Your task to perform on an android device: empty trash in google photos Image 0: 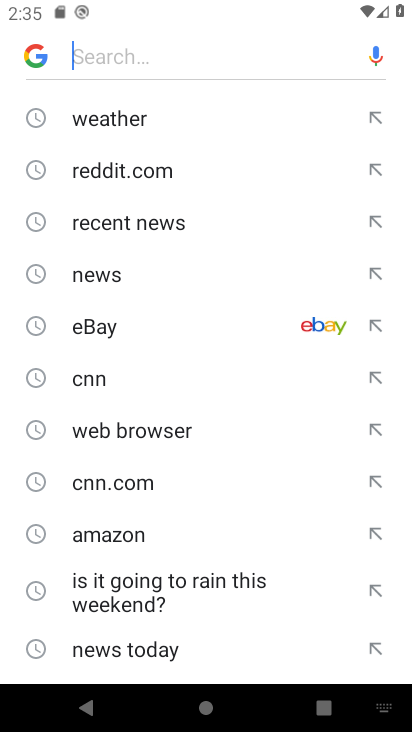
Step 0: press back button
Your task to perform on an android device: empty trash in google photos Image 1: 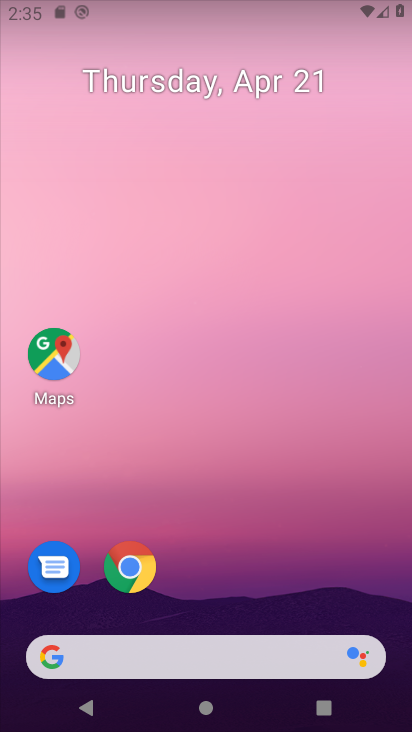
Step 1: drag from (283, 571) to (178, 3)
Your task to perform on an android device: empty trash in google photos Image 2: 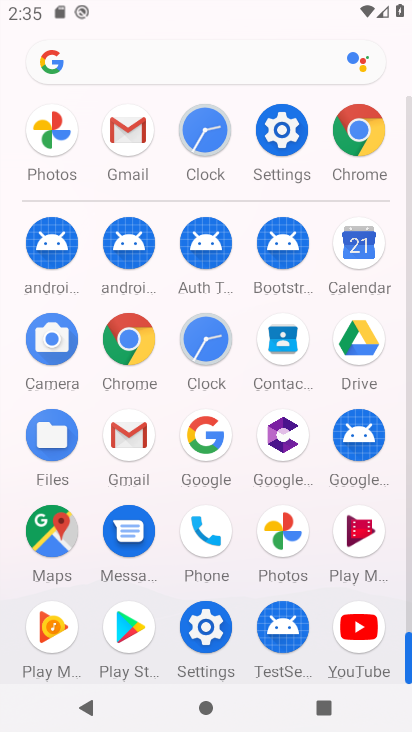
Step 2: drag from (15, 567) to (20, 259)
Your task to perform on an android device: empty trash in google photos Image 3: 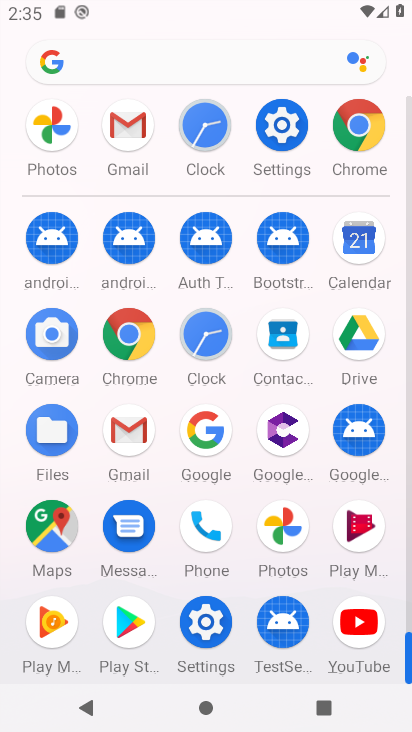
Step 3: drag from (7, 548) to (12, 284)
Your task to perform on an android device: empty trash in google photos Image 4: 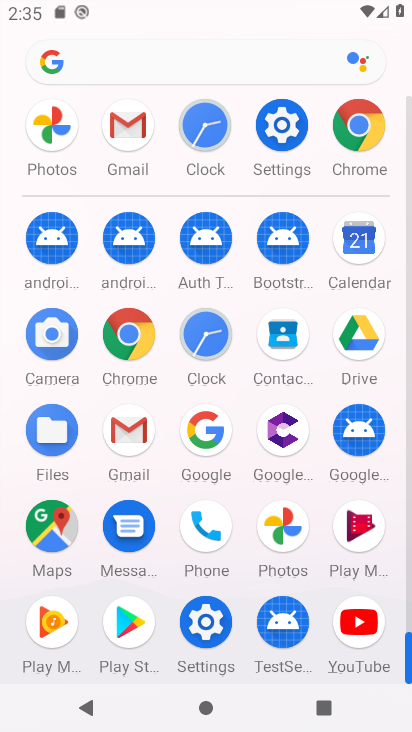
Step 4: click (274, 525)
Your task to perform on an android device: empty trash in google photos Image 5: 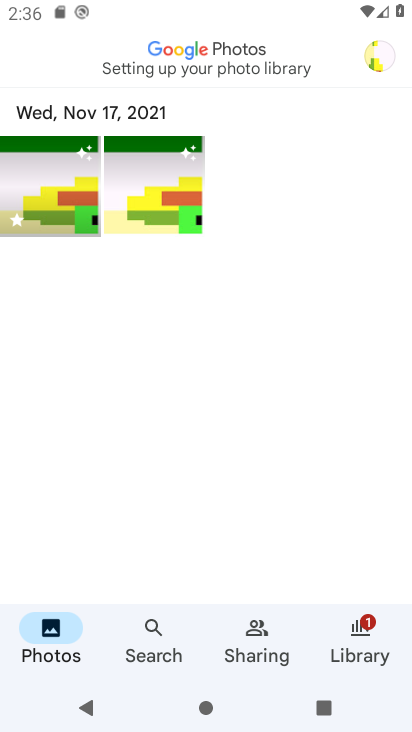
Step 5: click (144, 639)
Your task to perform on an android device: empty trash in google photos Image 6: 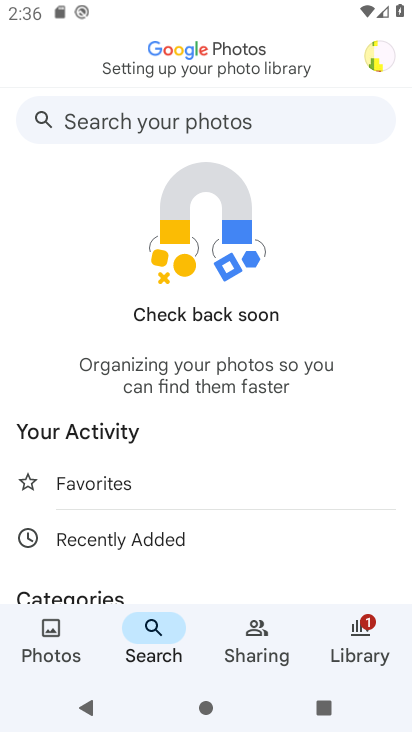
Step 6: click (37, 652)
Your task to perform on an android device: empty trash in google photos Image 7: 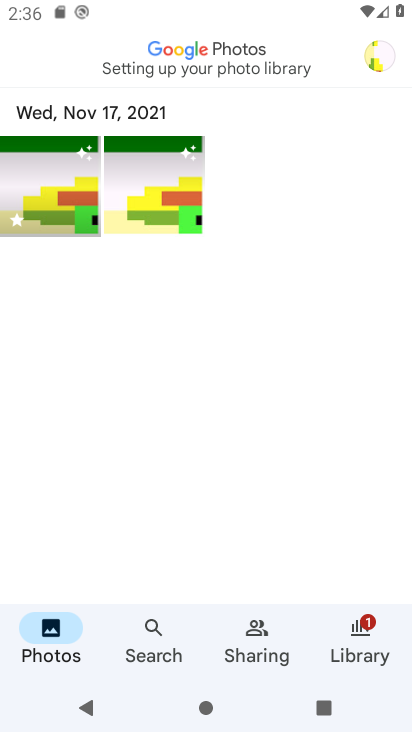
Step 7: click (364, 643)
Your task to perform on an android device: empty trash in google photos Image 8: 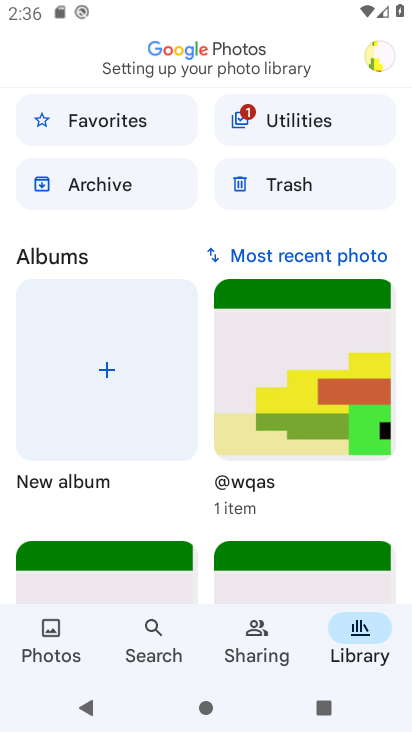
Step 8: click (277, 172)
Your task to perform on an android device: empty trash in google photos Image 9: 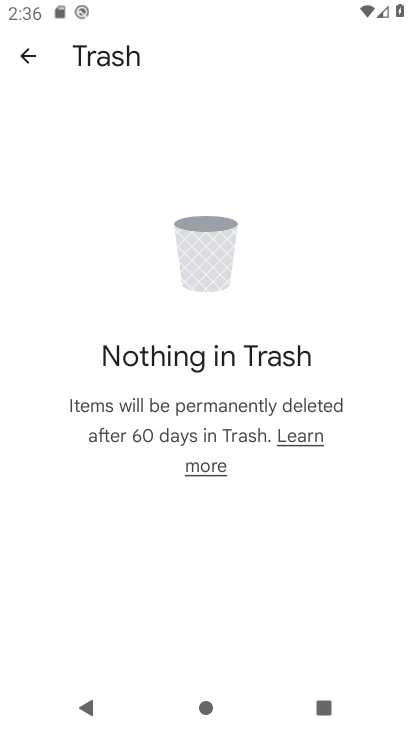
Step 9: task complete